Your task to perform on an android device: change notification settings in the gmail app Image 0: 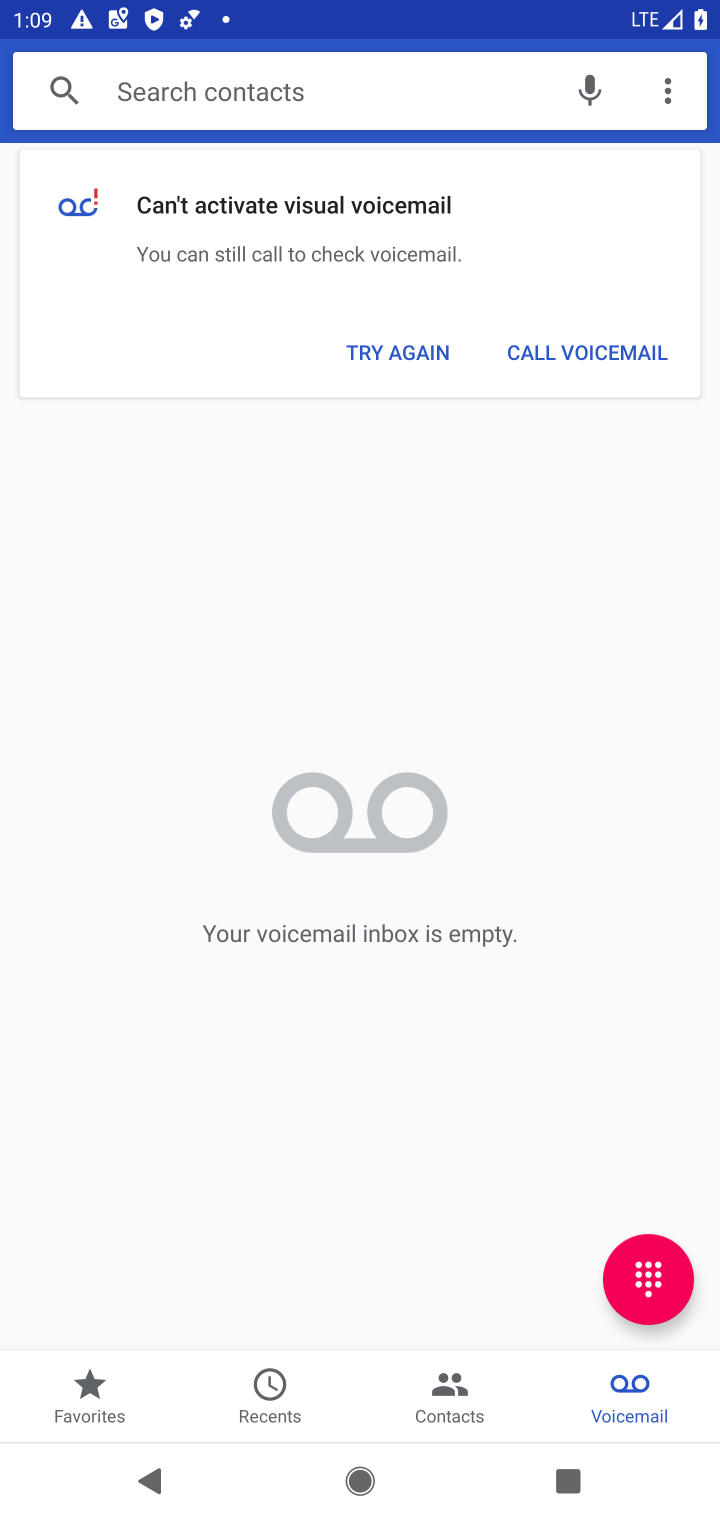
Step 0: press back button
Your task to perform on an android device: change notification settings in the gmail app Image 1: 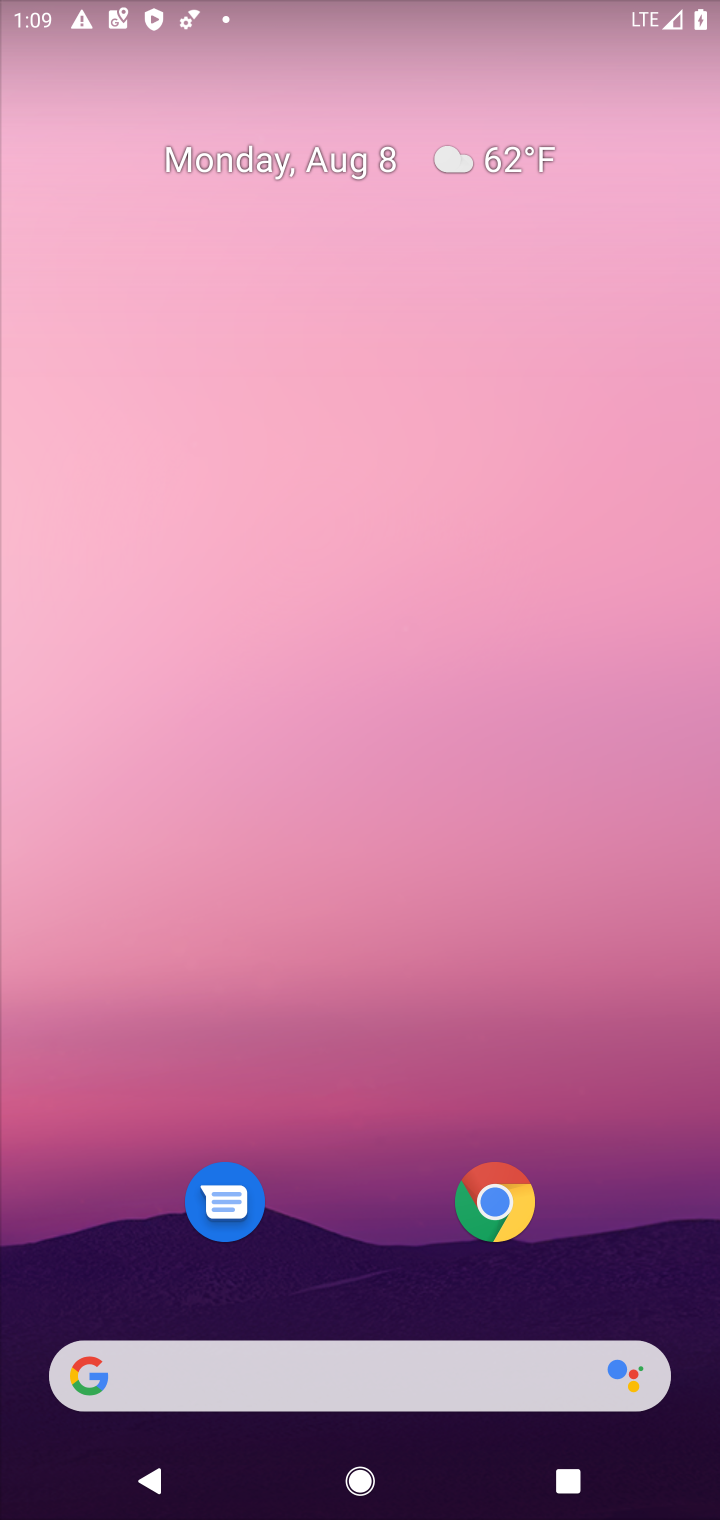
Step 1: drag from (332, 1167) to (423, 17)
Your task to perform on an android device: change notification settings in the gmail app Image 2: 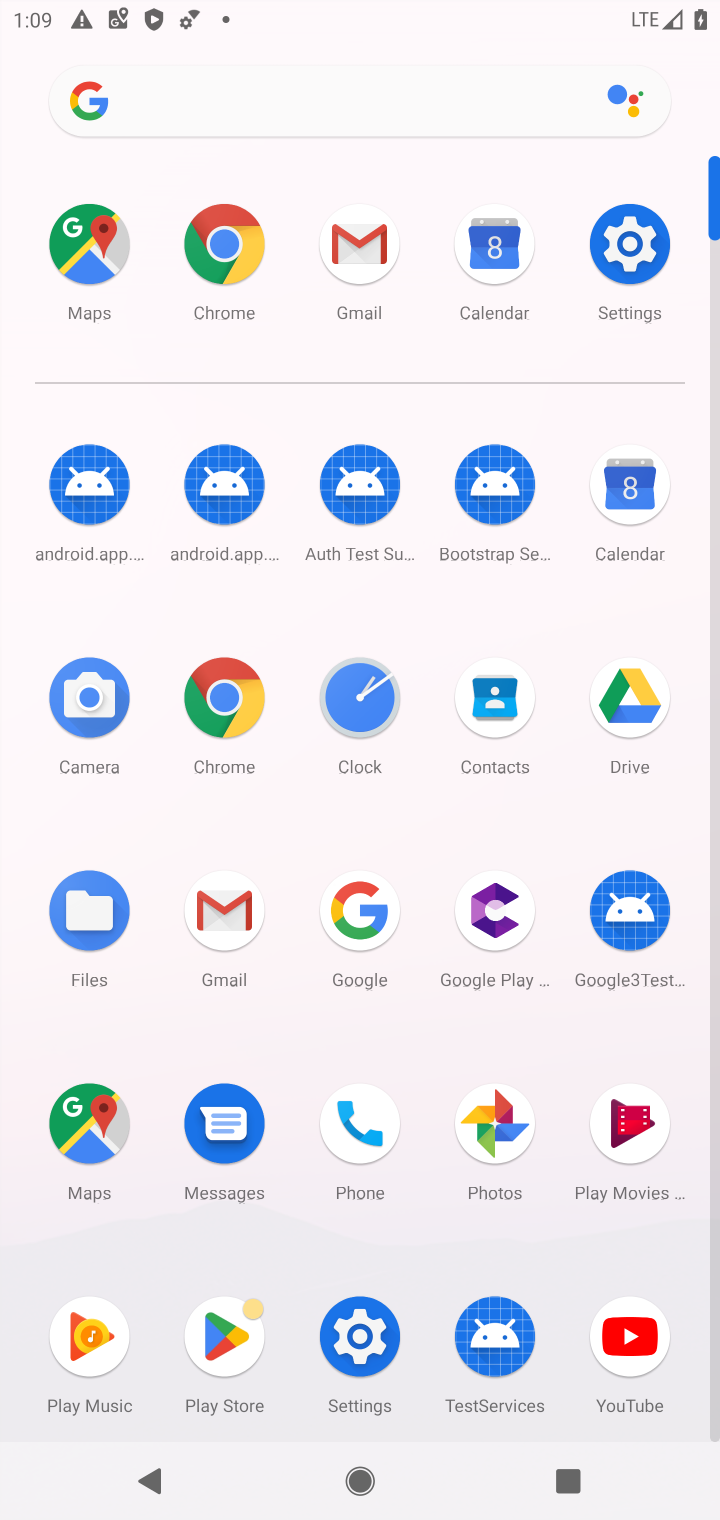
Step 2: click (363, 259)
Your task to perform on an android device: change notification settings in the gmail app Image 3: 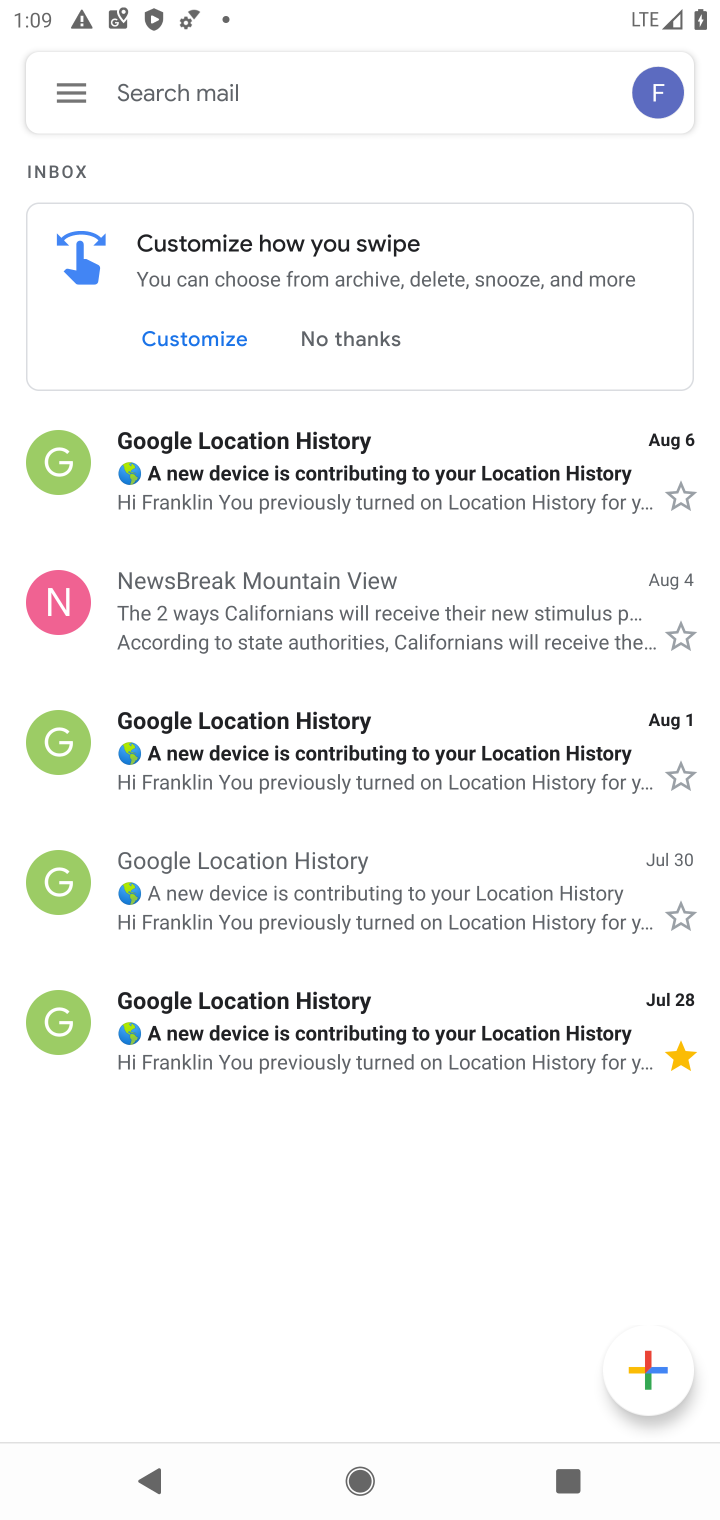
Step 3: click (73, 91)
Your task to perform on an android device: change notification settings in the gmail app Image 4: 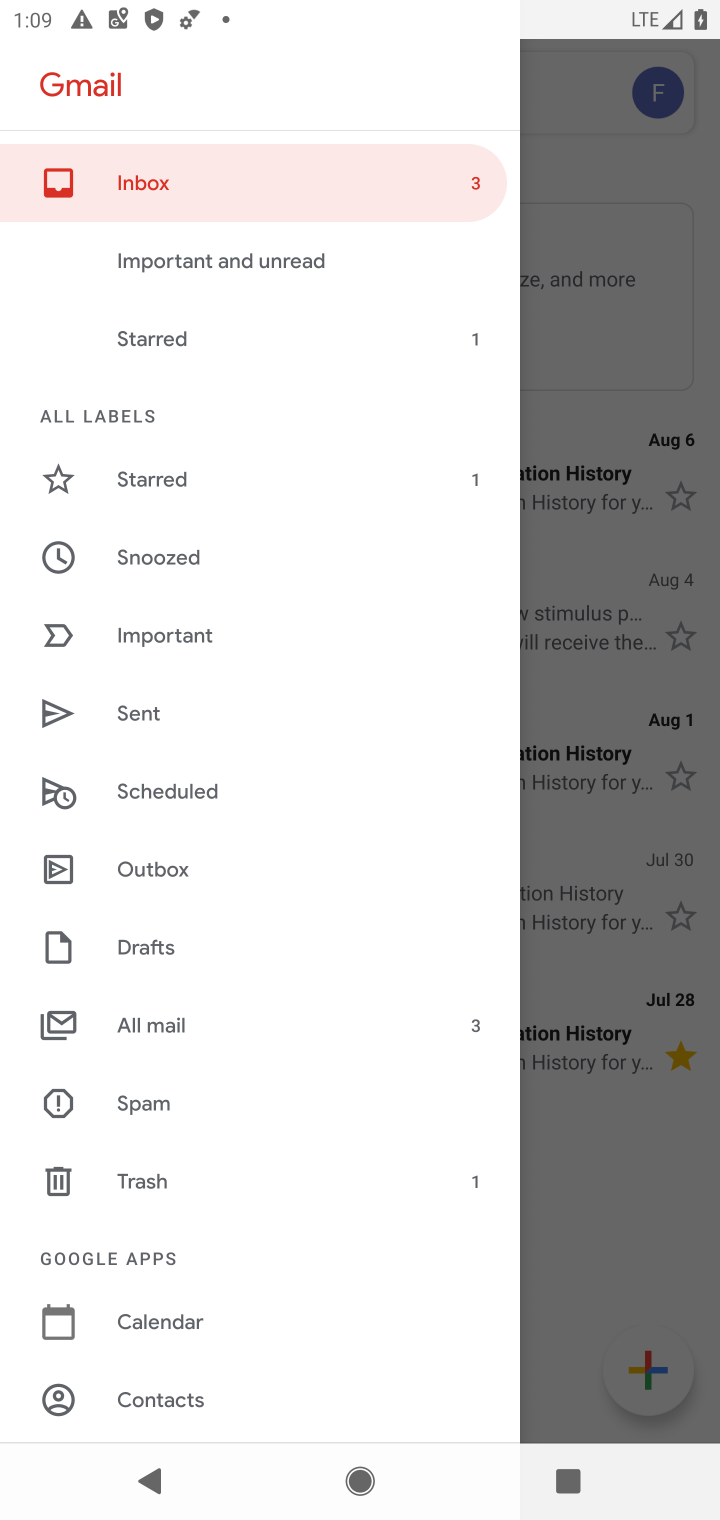
Step 4: drag from (205, 1344) to (304, 751)
Your task to perform on an android device: change notification settings in the gmail app Image 5: 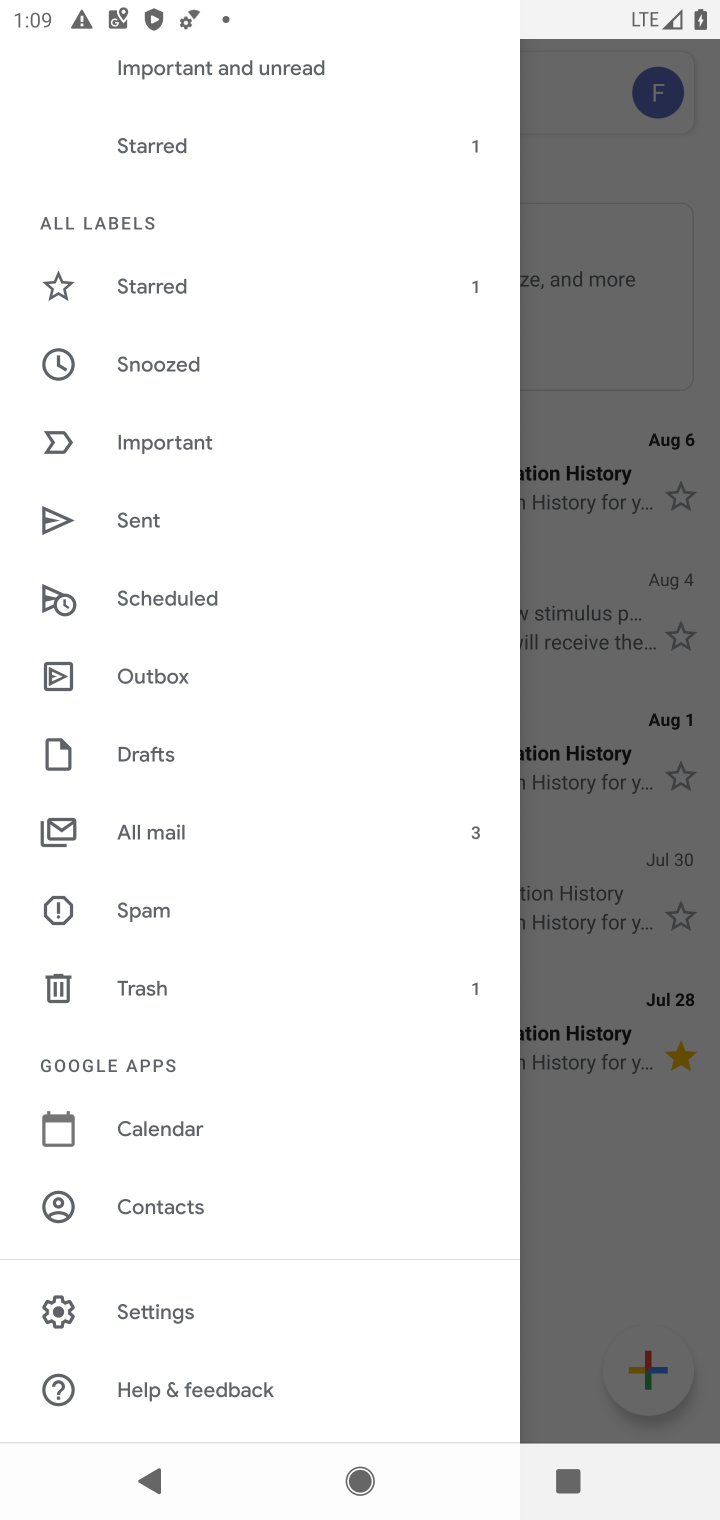
Step 5: click (193, 1321)
Your task to perform on an android device: change notification settings in the gmail app Image 6: 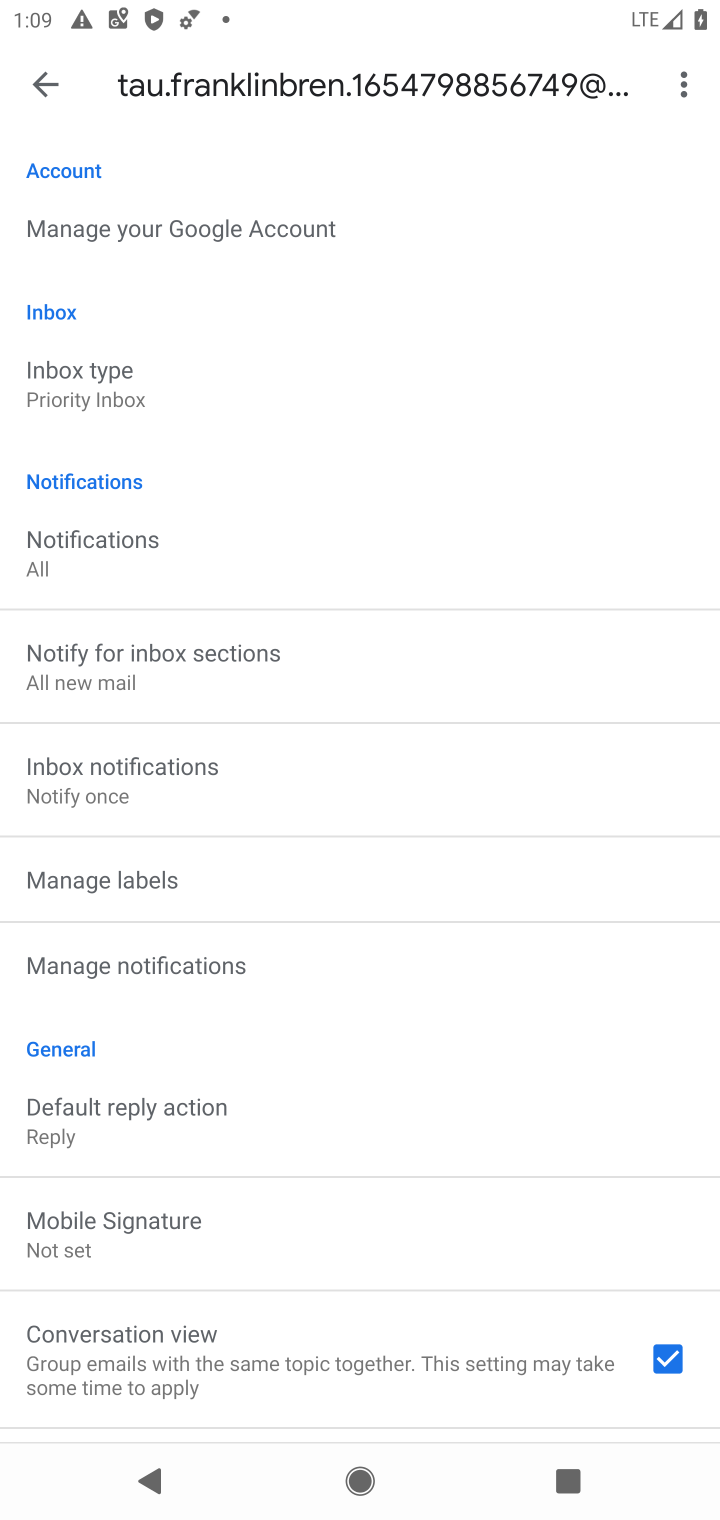
Step 6: click (139, 551)
Your task to perform on an android device: change notification settings in the gmail app Image 7: 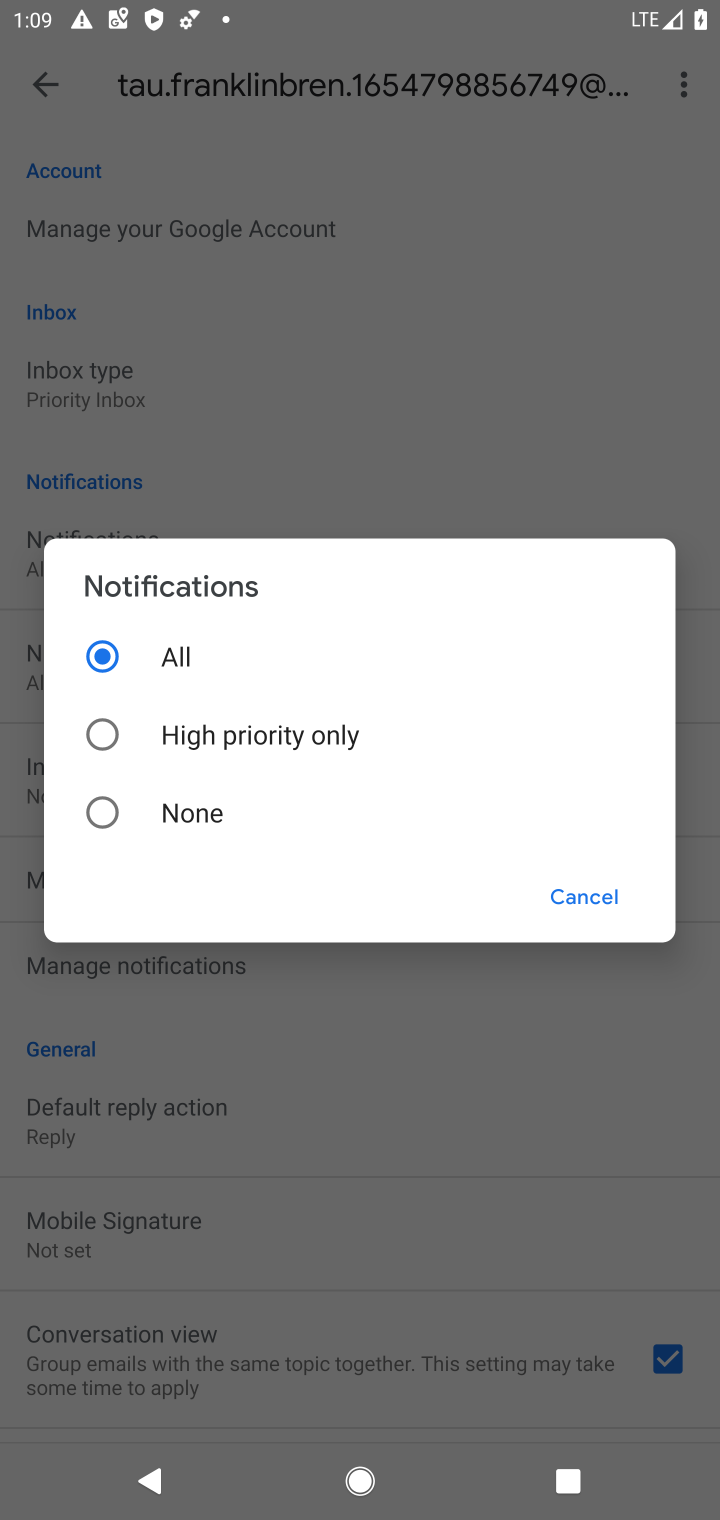
Step 7: click (106, 829)
Your task to perform on an android device: change notification settings in the gmail app Image 8: 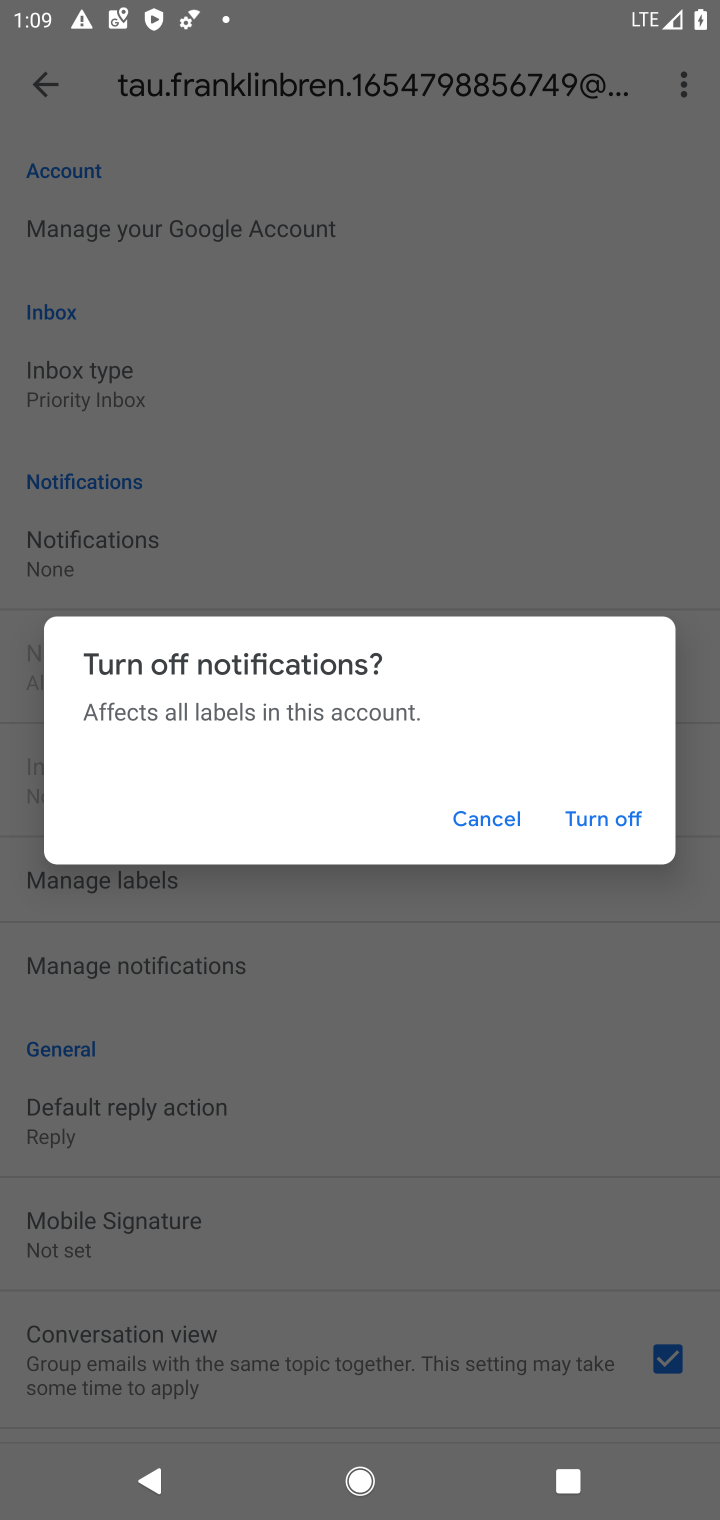
Step 8: click (612, 814)
Your task to perform on an android device: change notification settings in the gmail app Image 9: 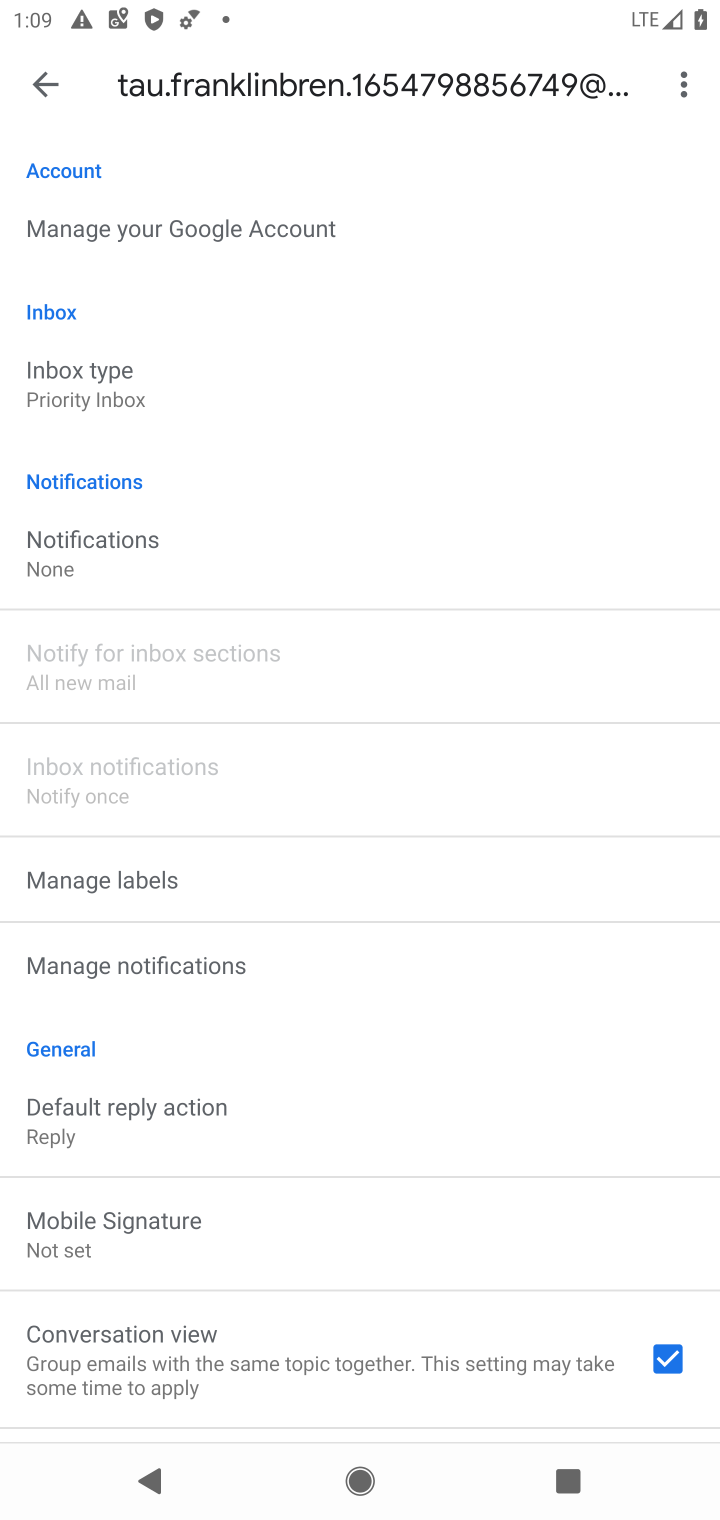
Step 9: task complete